Your task to perform on an android device: Open Google Chrome and open the bookmarks view Image 0: 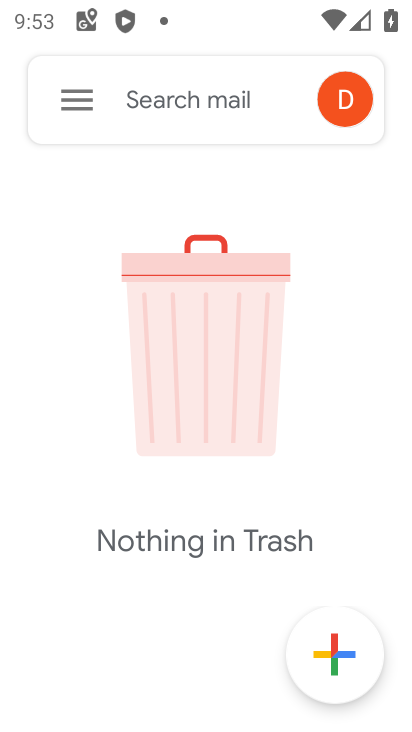
Step 0: press home button
Your task to perform on an android device: Open Google Chrome and open the bookmarks view Image 1: 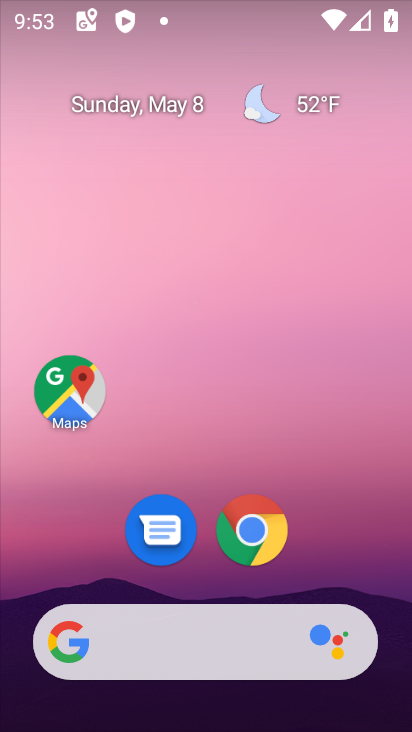
Step 1: drag from (309, 549) to (323, 189)
Your task to perform on an android device: Open Google Chrome and open the bookmarks view Image 2: 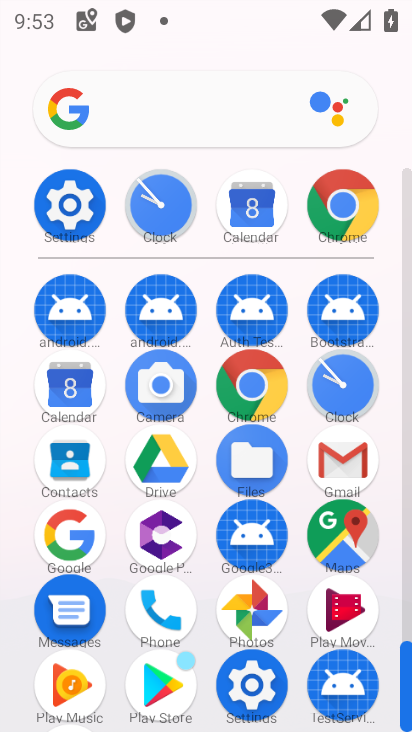
Step 2: click (260, 408)
Your task to perform on an android device: Open Google Chrome and open the bookmarks view Image 3: 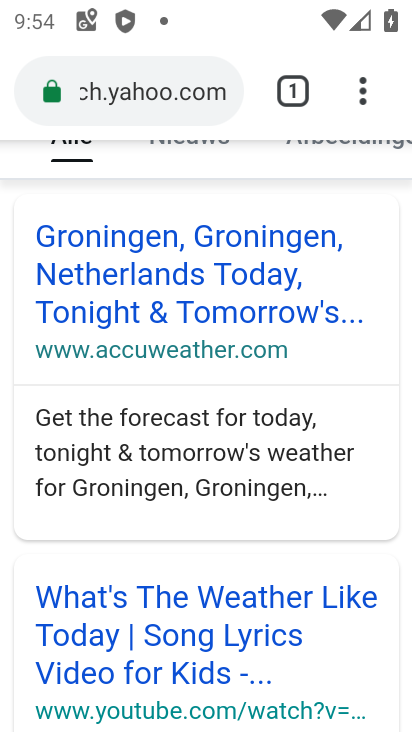
Step 3: drag from (365, 102) to (147, 354)
Your task to perform on an android device: Open Google Chrome and open the bookmarks view Image 4: 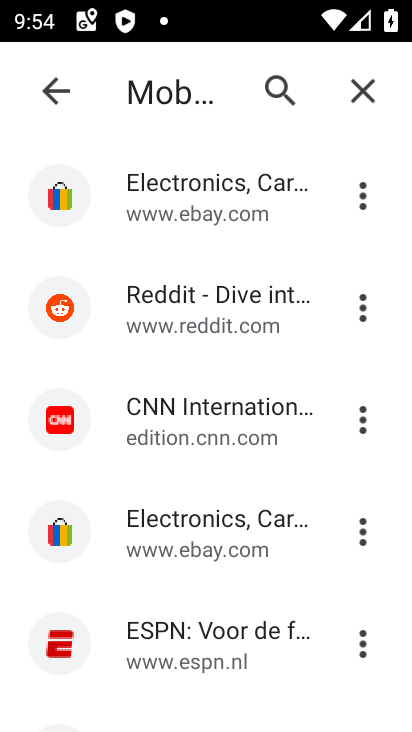
Step 4: drag from (169, 631) to (183, 234)
Your task to perform on an android device: Open Google Chrome and open the bookmarks view Image 5: 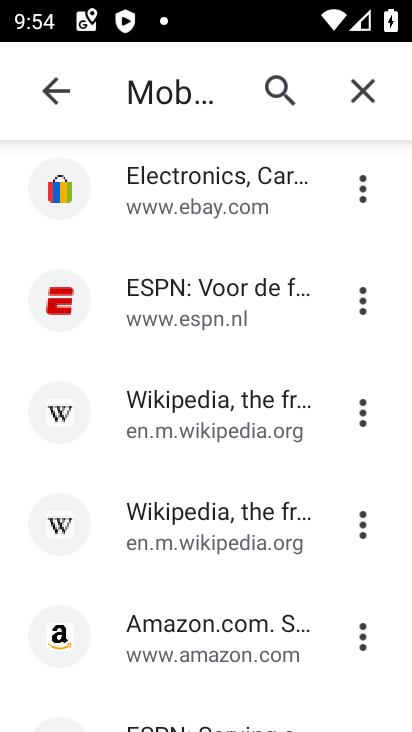
Step 5: click (356, 185)
Your task to perform on an android device: Open Google Chrome and open the bookmarks view Image 6: 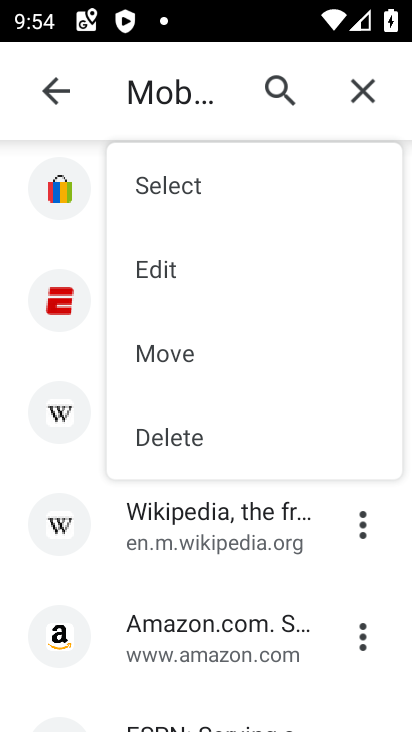
Step 6: click (188, 439)
Your task to perform on an android device: Open Google Chrome and open the bookmarks view Image 7: 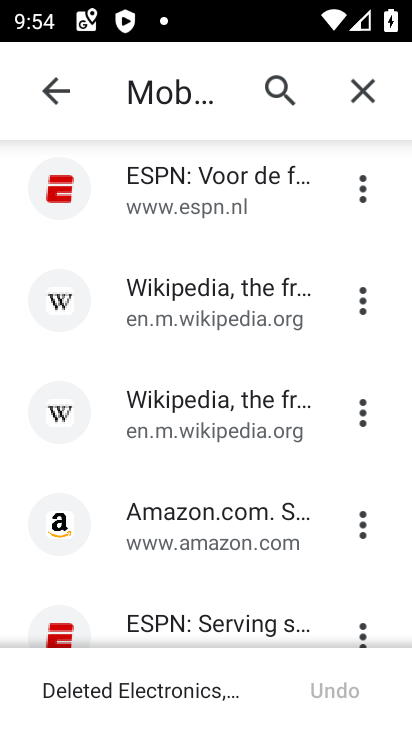
Step 7: task complete